Your task to perform on an android device: turn off airplane mode Image 0: 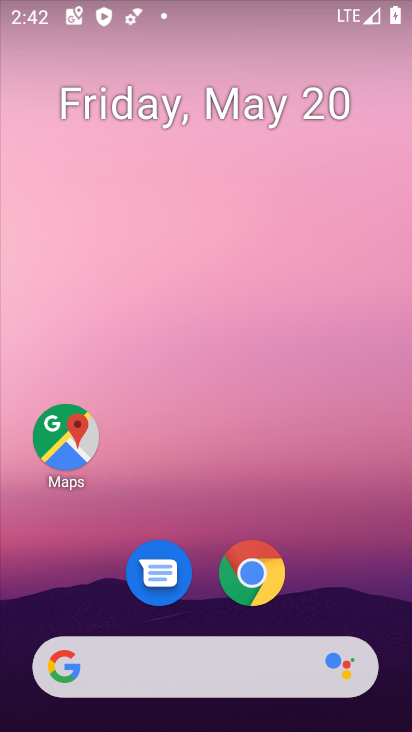
Step 0: drag from (349, 383) to (325, 142)
Your task to perform on an android device: turn off airplane mode Image 1: 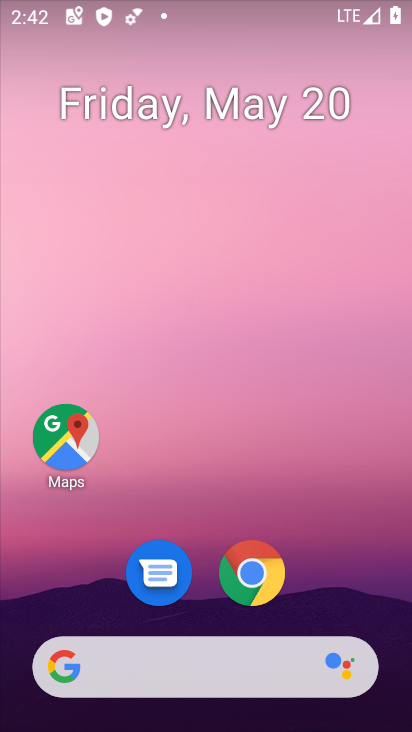
Step 1: drag from (358, 562) to (274, 184)
Your task to perform on an android device: turn off airplane mode Image 2: 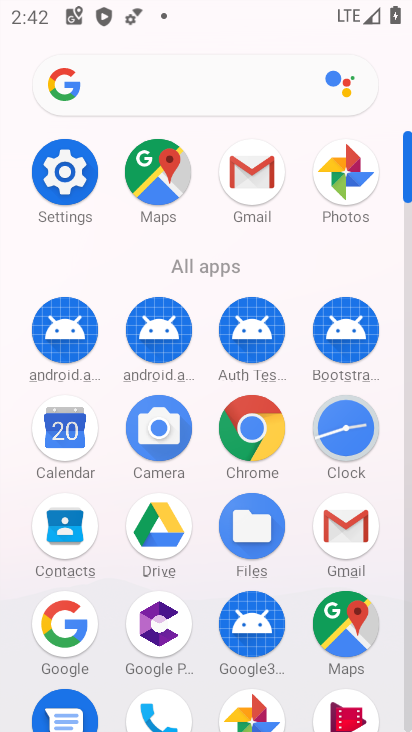
Step 2: click (84, 170)
Your task to perform on an android device: turn off airplane mode Image 3: 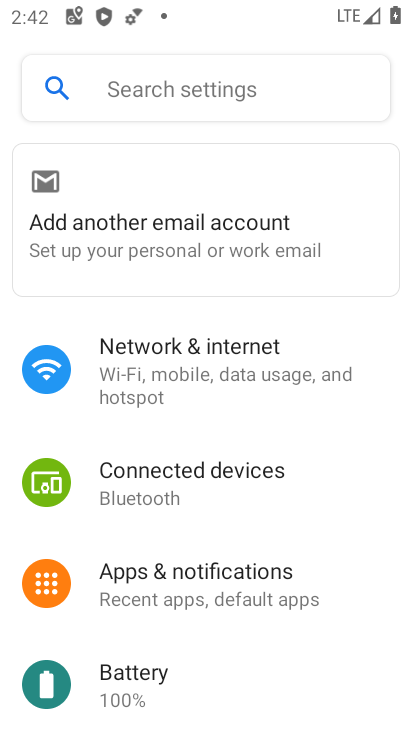
Step 3: click (115, 376)
Your task to perform on an android device: turn off airplane mode Image 4: 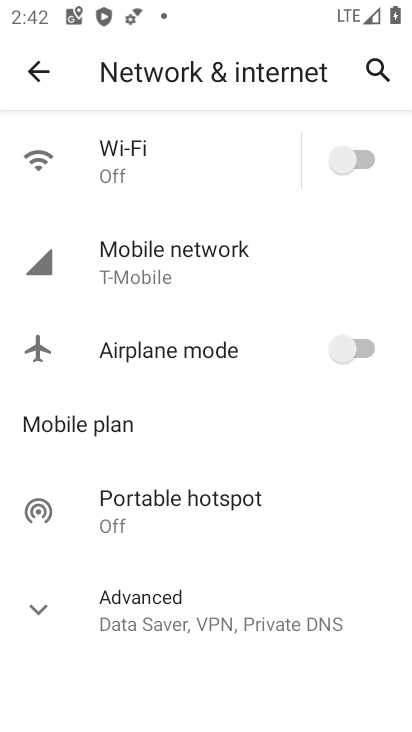
Step 4: task complete